Your task to perform on an android device: Open Android settings Image 0: 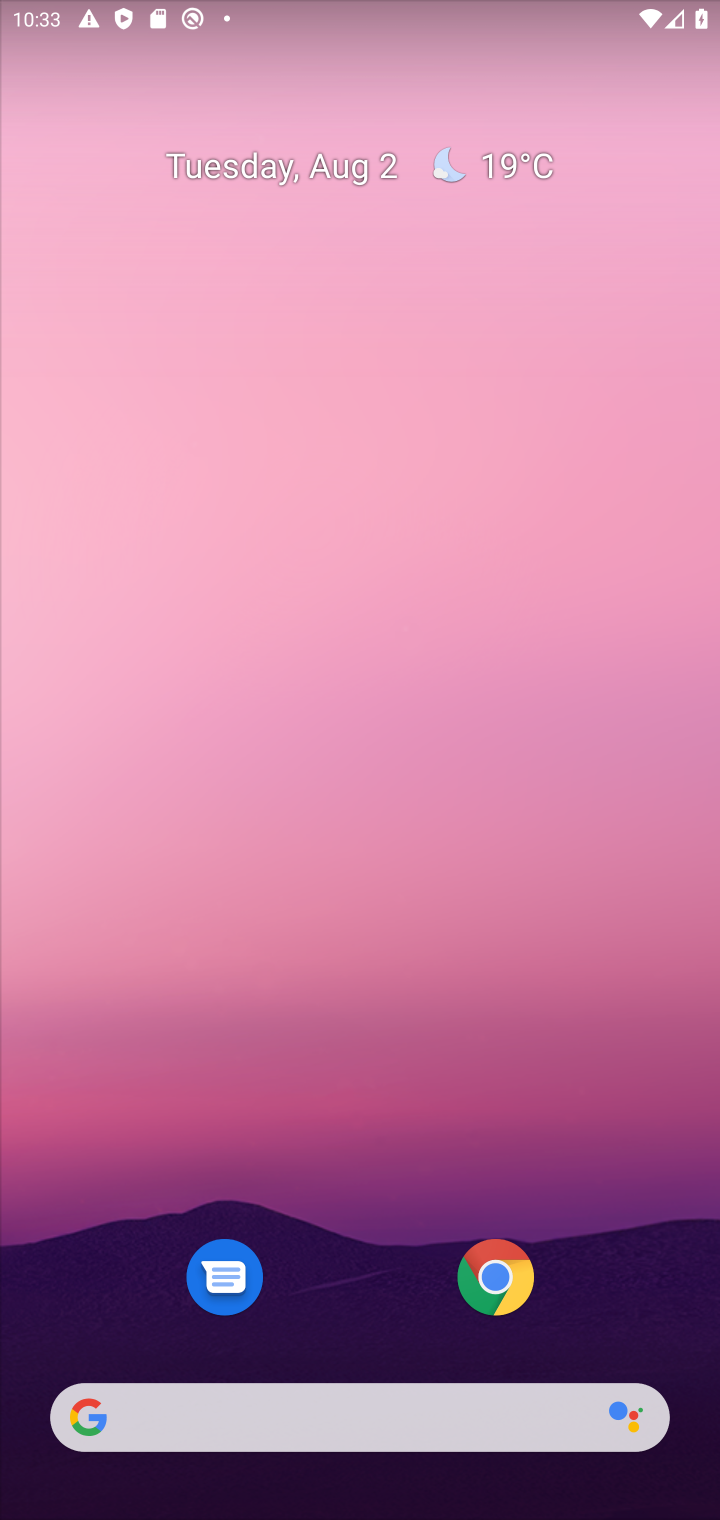
Step 0: press home button
Your task to perform on an android device: Open Android settings Image 1: 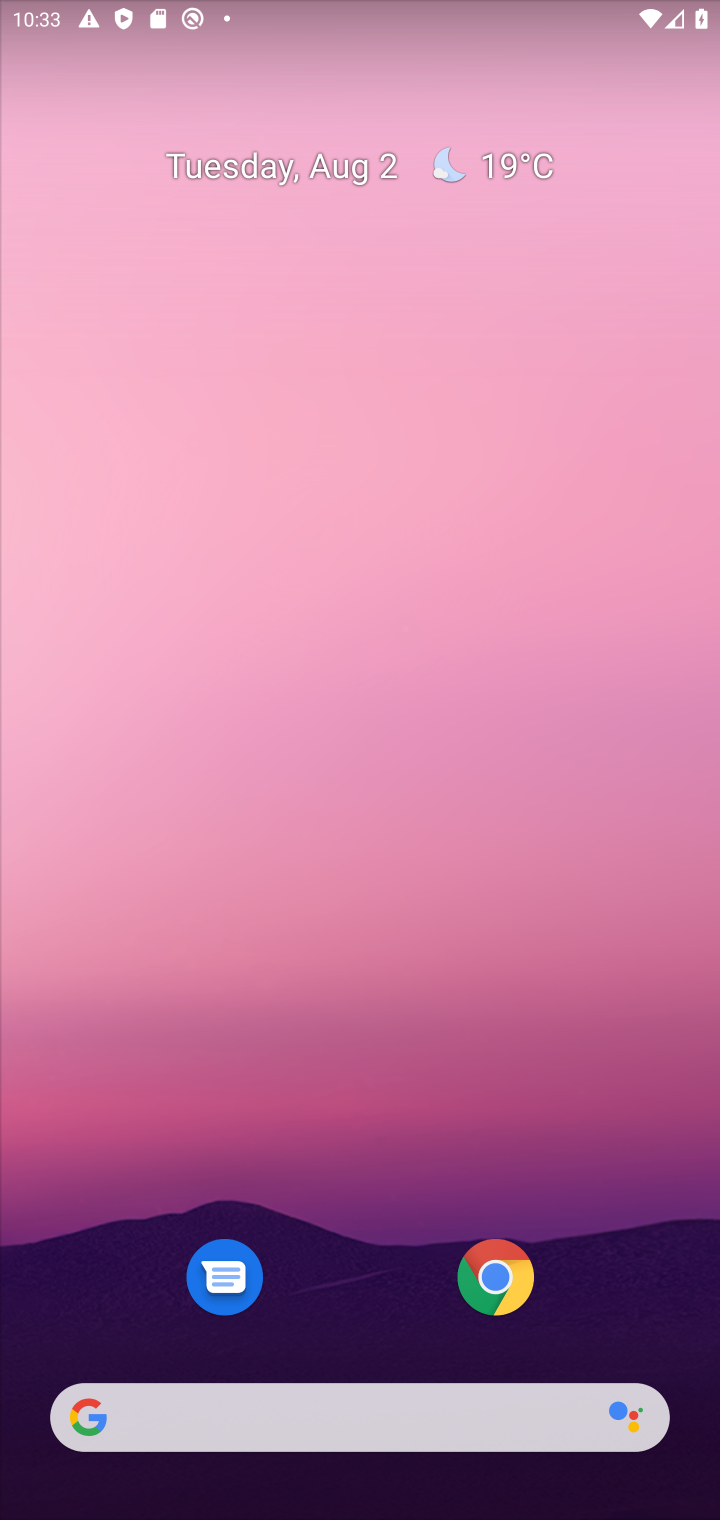
Step 1: drag from (394, 1182) to (343, 4)
Your task to perform on an android device: Open Android settings Image 2: 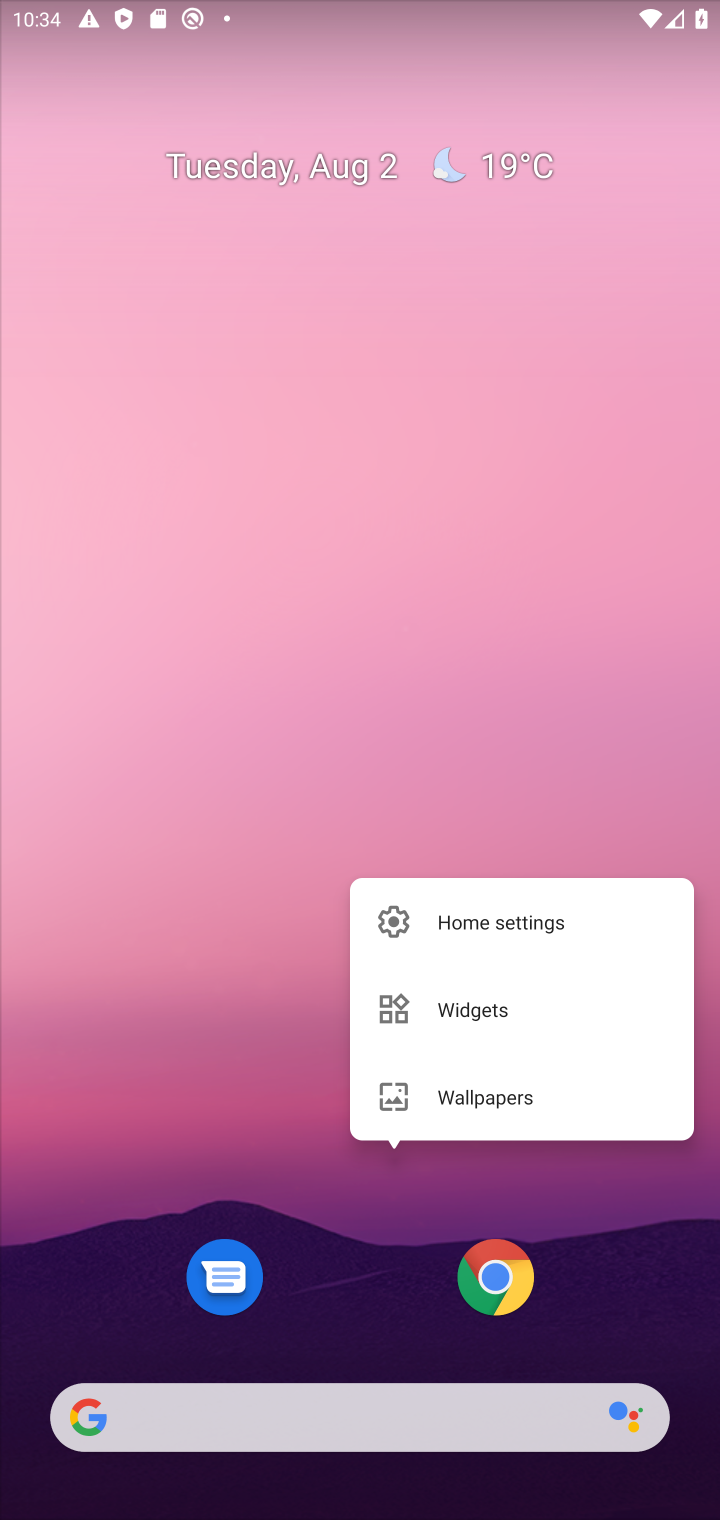
Step 2: drag from (310, 1140) to (300, 156)
Your task to perform on an android device: Open Android settings Image 3: 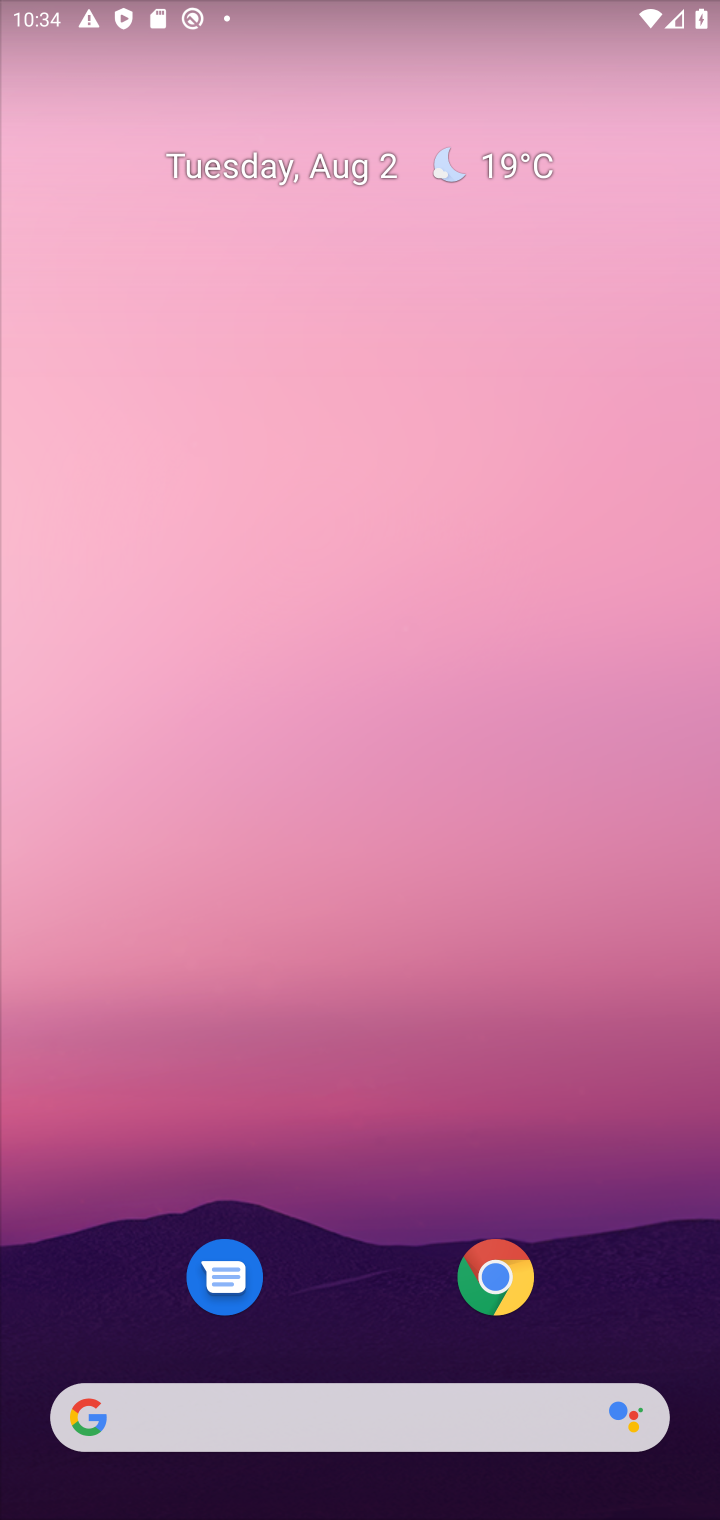
Step 3: drag from (330, 738) to (340, 379)
Your task to perform on an android device: Open Android settings Image 4: 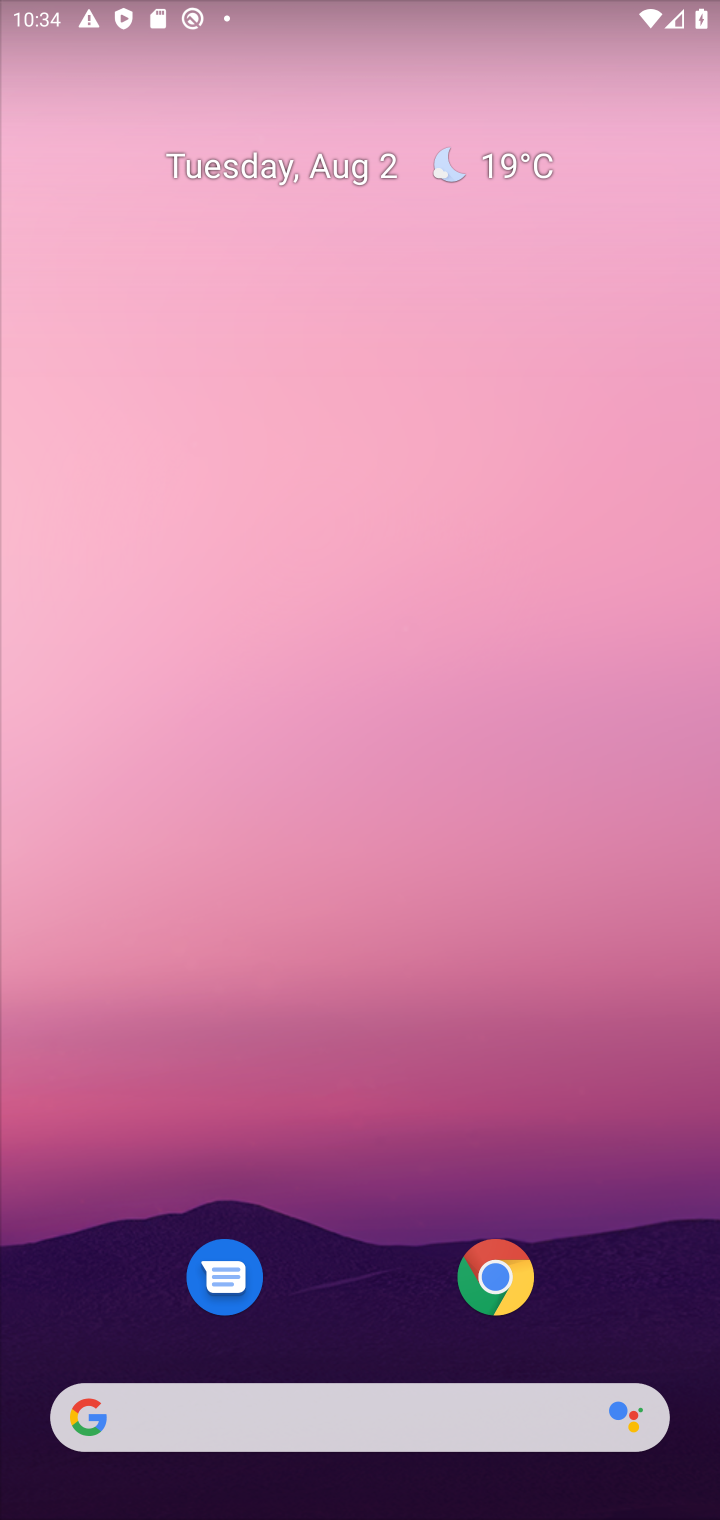
Step 4: drag from (322, 138) to (693, 1142)
Your task to perform on an android device: Open Android settings Image 5: 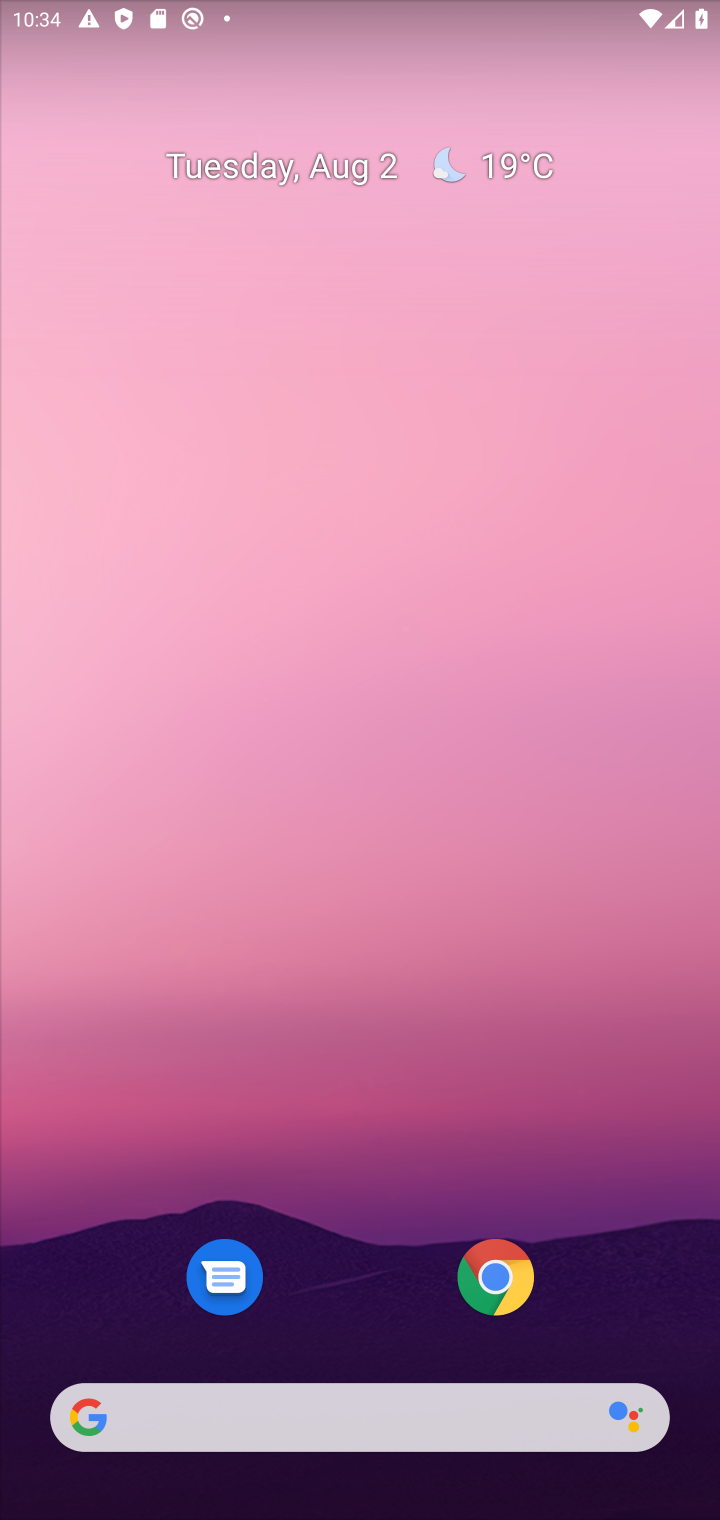
Step 5: drag from (302, 569) to (355, 14)
Your task to perform on an android device: Open Android settings Image 6: 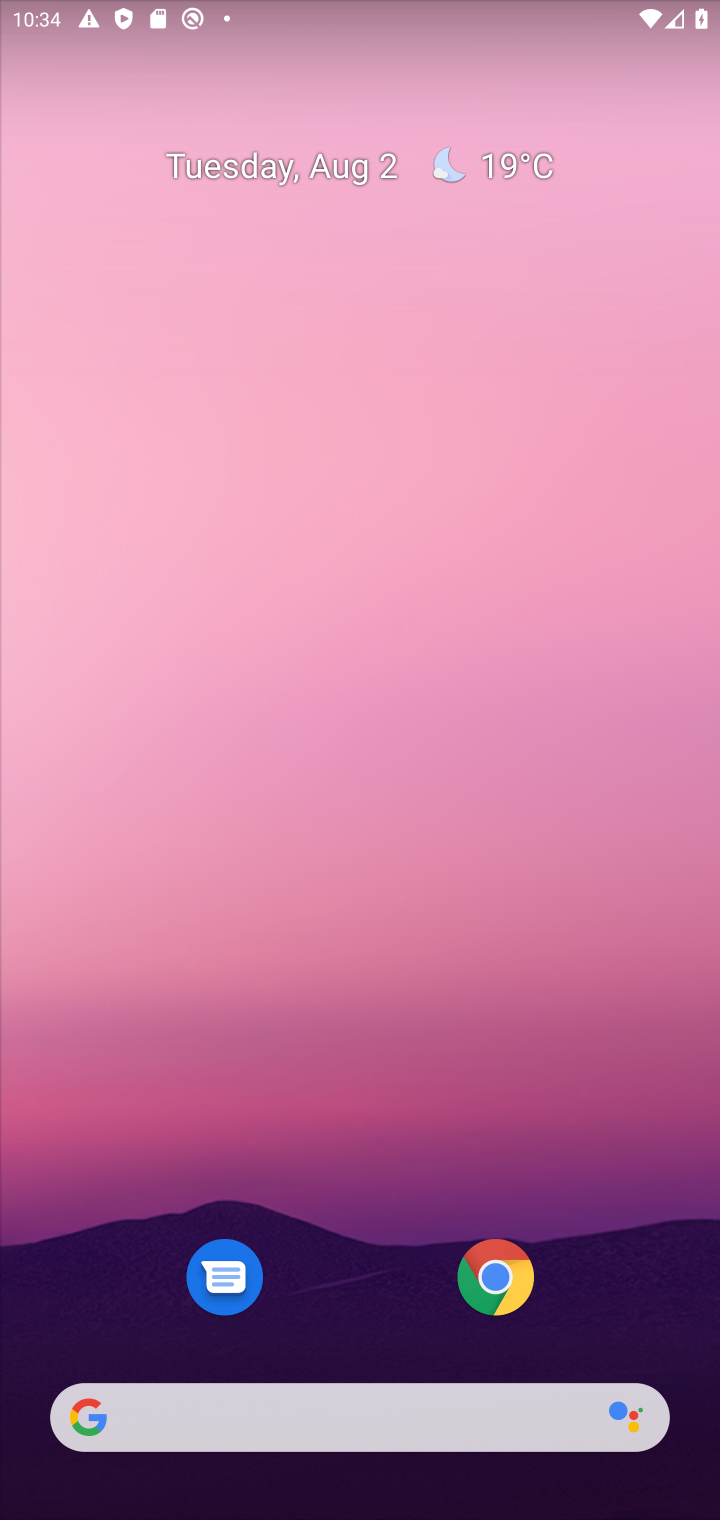
Step 6: drag from (387, 1082) to (339, 159)
Your task to perform on an android device: Open Android settings Image 7: 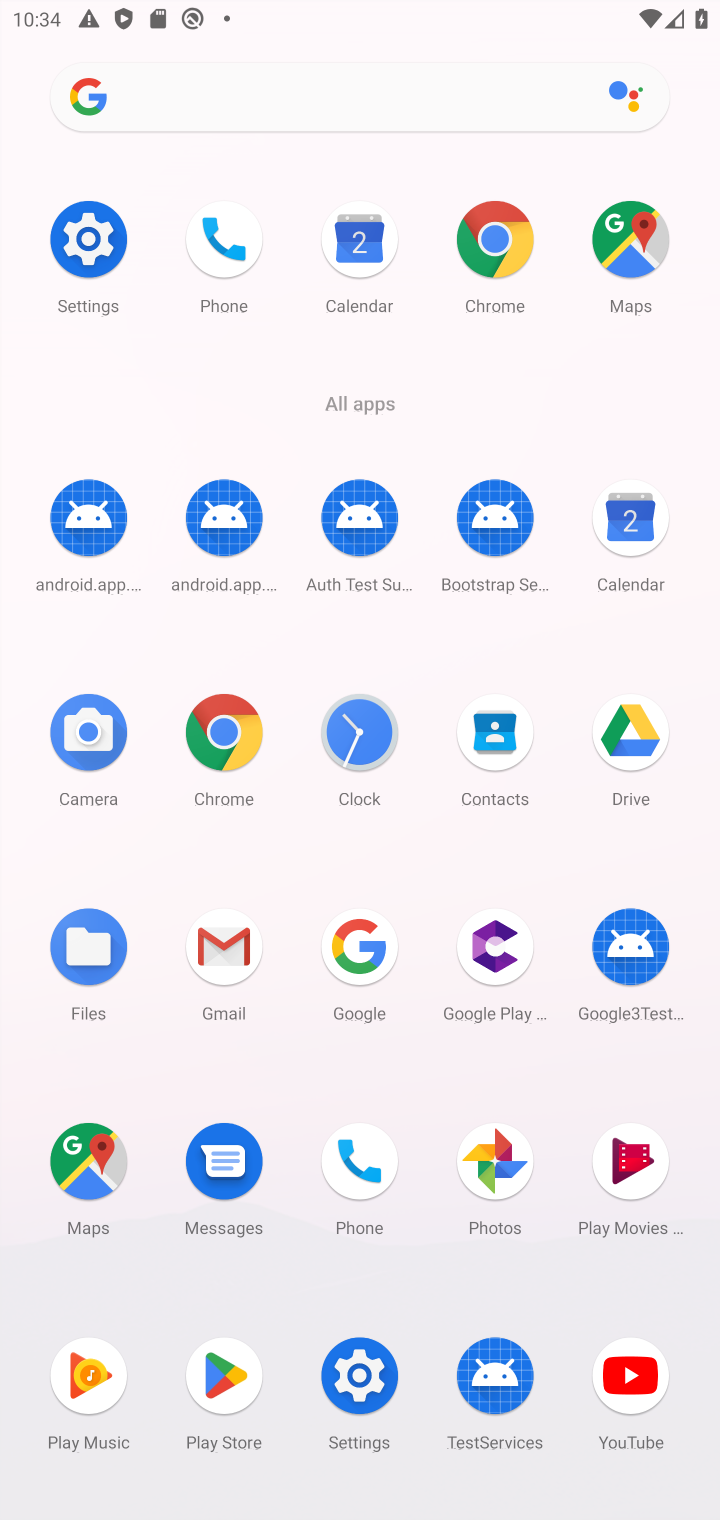
Step 7: click (78, 239)
Your task to perform on an android device: Open Android settings Image 8: 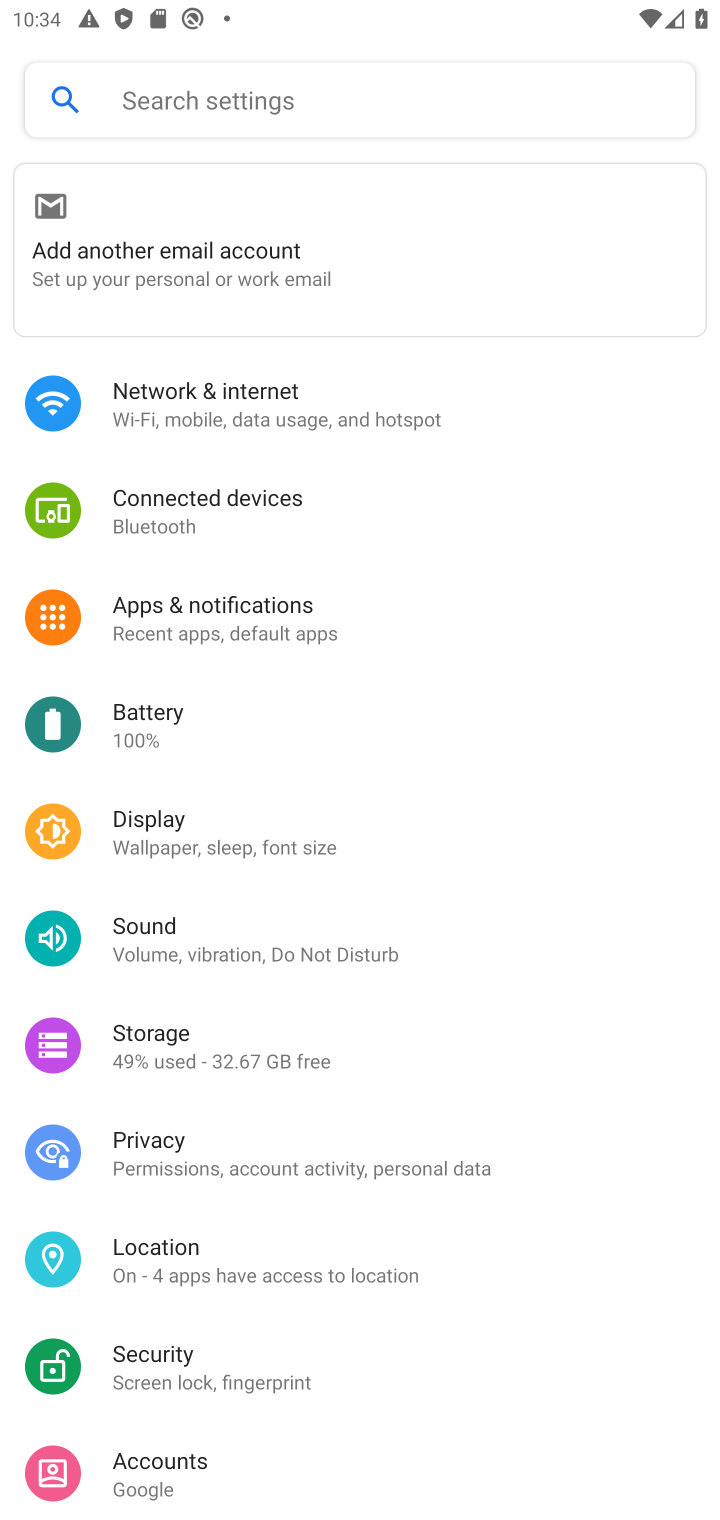
Step 8: task complete